Your task to perform on an android device: Open accessibility settings Image 0: 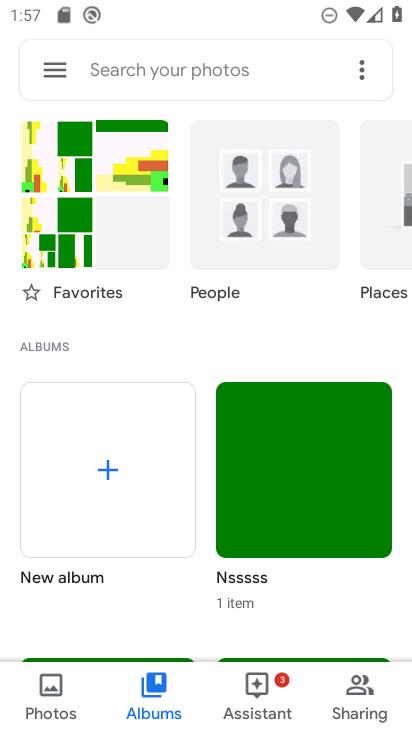
Step 0: press home button
Your task to perform on an android device: Open accessibility settings Image 1: 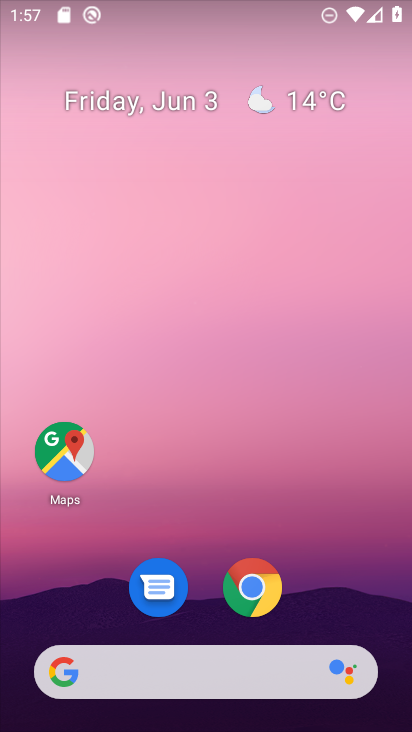
Step 1: drag from (206, 622) to (276, 64)
Your task to perform on an android device: Open accessibility settings Image 2: 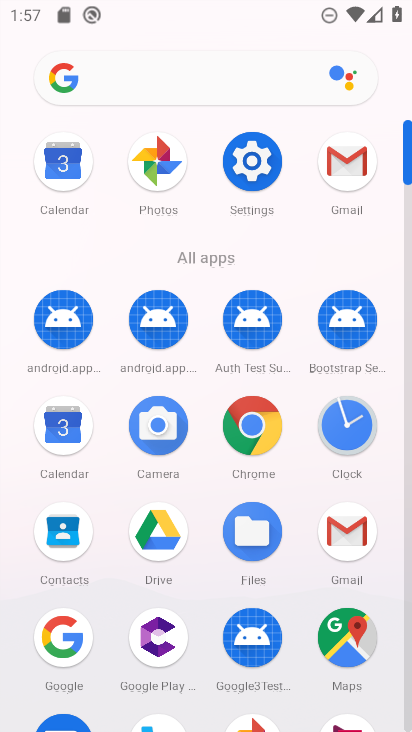
Step 2: click (247, 176)
Your task to perform on an android device: Open accessibility settings Image 3: 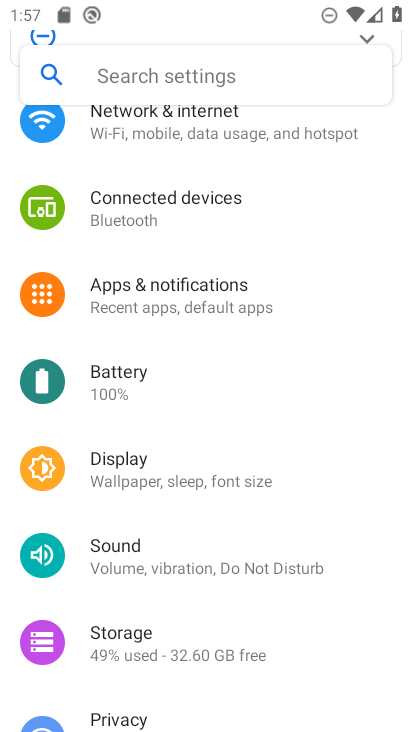
Step 3: drag from (210, 657) to (270, 202)
Your task to perform on an android device: Open accessibility settings Image 4: 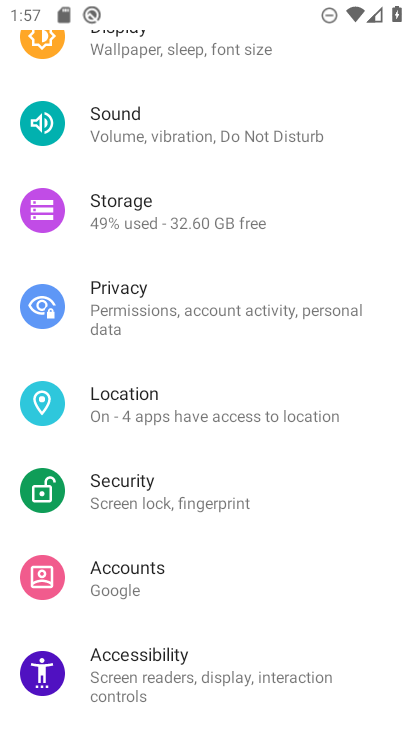
Step 4: click (187, 664)
Your task to perform on an android device: Open accessibility settings Image 5: 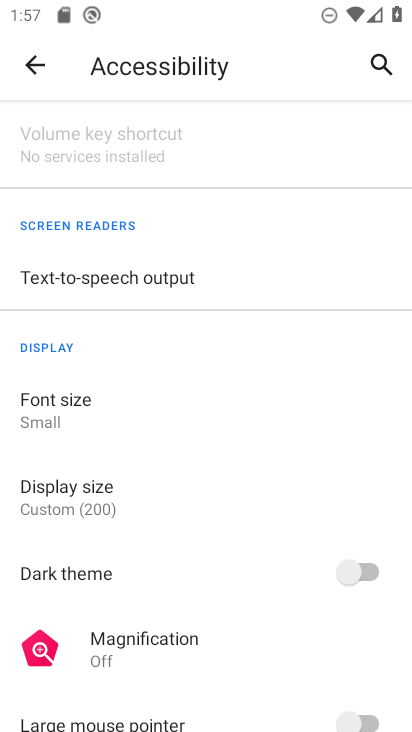
Step 5: task complete